Your task to perform on an android device: open a new tab in the chrome app Image 0: 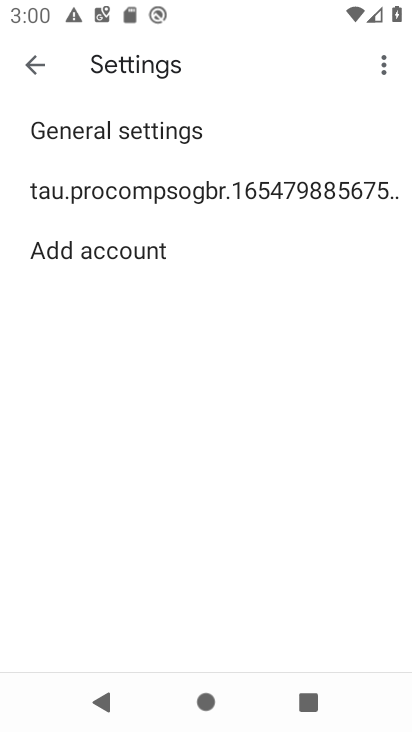
Step 0: press home button
Your task to perform on an android device: open a new tab in the chrome app Image 1: 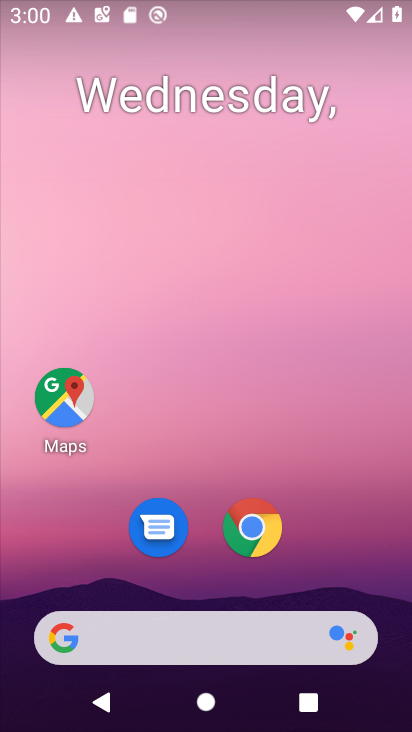
Step 1: drag from (324, 563) to (337, 66)
Your task to perform on an android device: open a new tab in the chrome app Image 2: 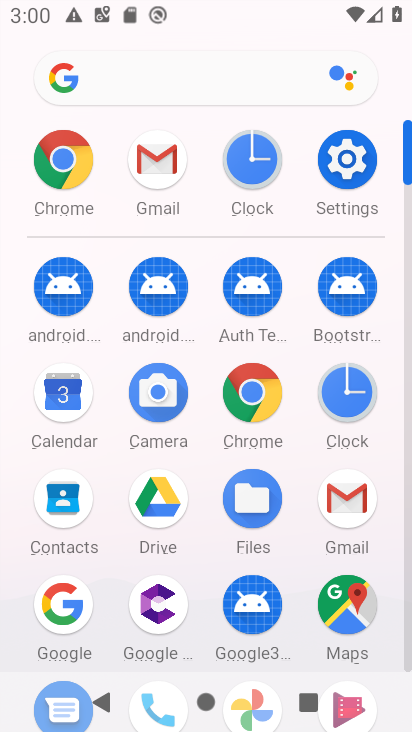
Step 2: click (255, 391)
Your task to perform on an android device: open a new tab in the chrome app Image 3: 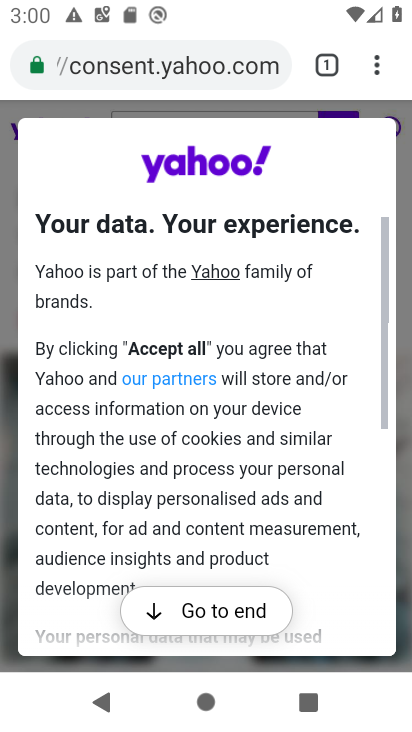
Step 3: task complete